Your task to perform on an android device: Open battery settings Image 0: 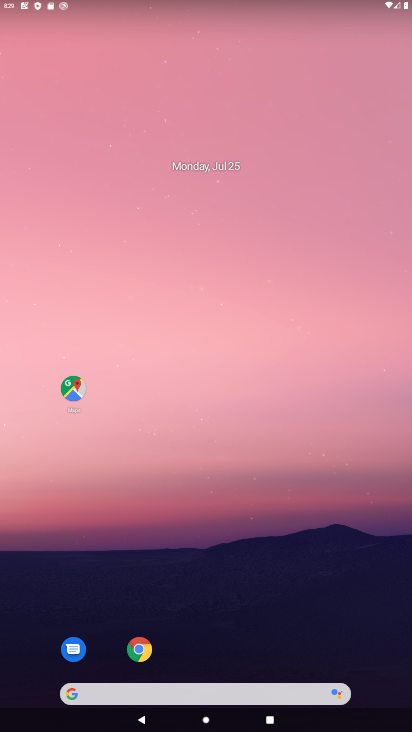
Step 0: drag from (186, 667) to (108, 68)
Your task to perform on an android device: Open battery settings Image 1: 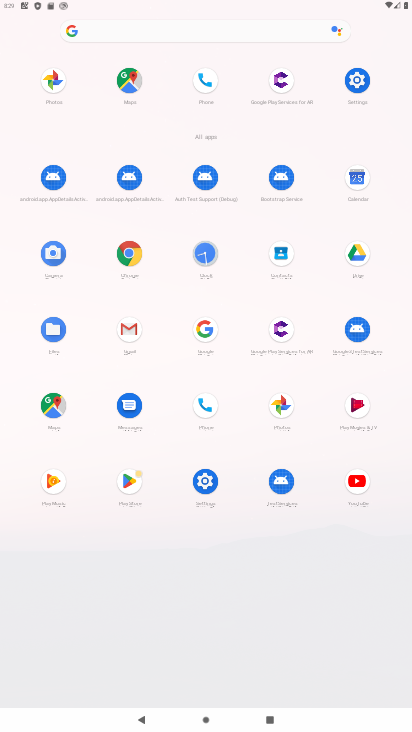
Step 1: click (359, 80)
Your task to perform on an android device: Open battery settings Image 2: 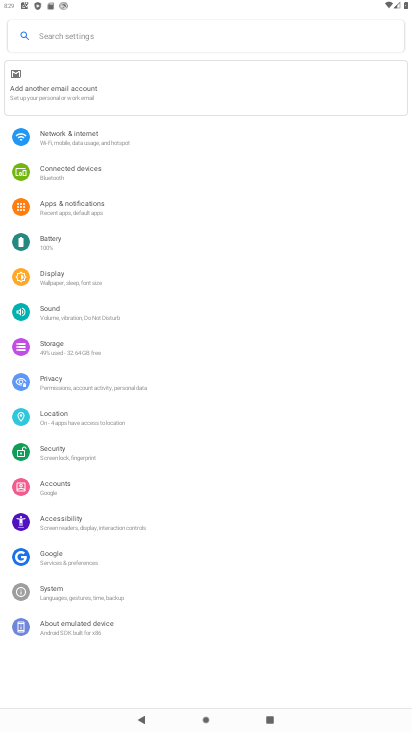
Step 2: click (46, 240)
Your task to perform on an android device: Open battery settings Image 3: 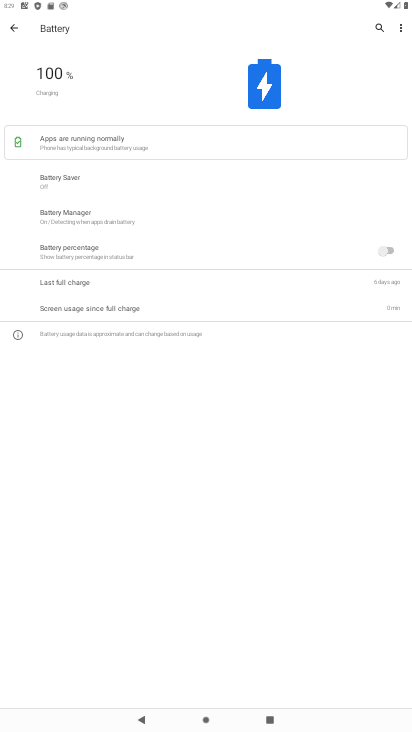
Step 3: task complete